Your task to perform on an android device: open chrome and create a bookmark for the current page Image 0: 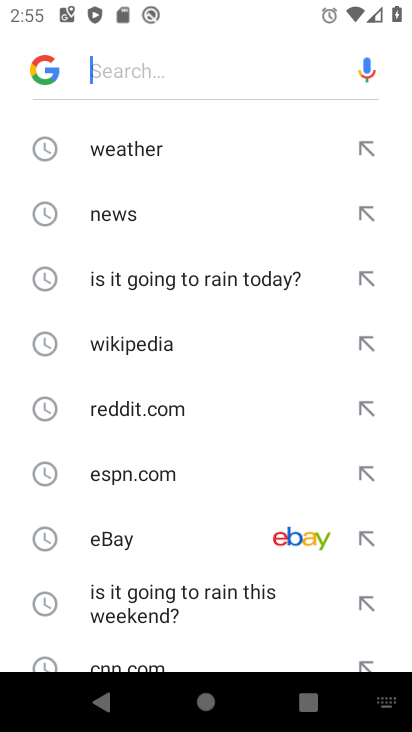
Step 0: press back button
Your task to perform on an android device: open chrome and create a bookmark for the current page Image 1: 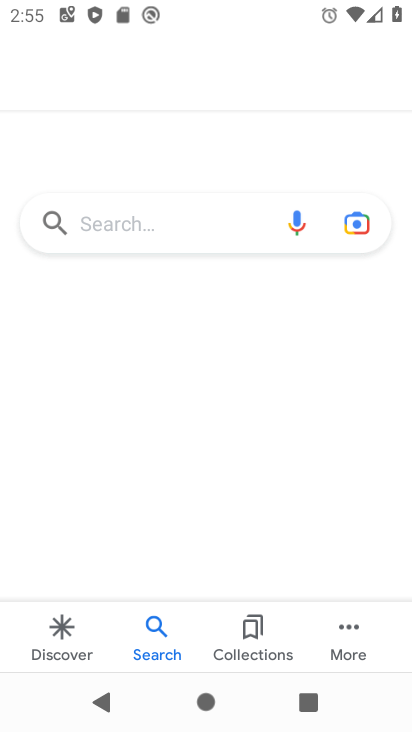
Step 1: press back button
Your task to perform on an android device: open chrome and create a bookmark for the current page Image 2: 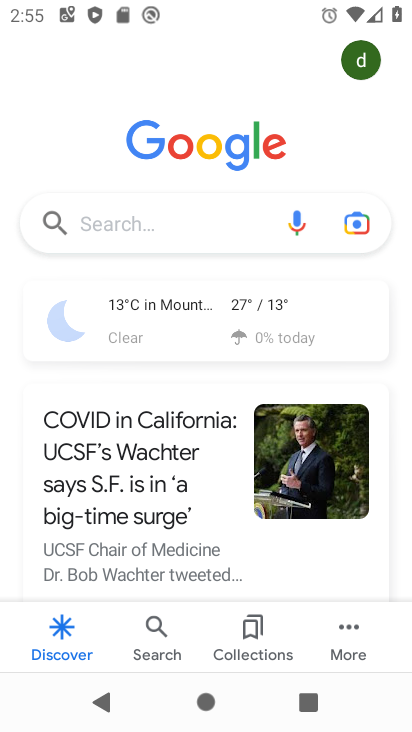
Step 2: press back button
Your task to perform on an android device: open chrome and create a bookmark for the current page Image 3: 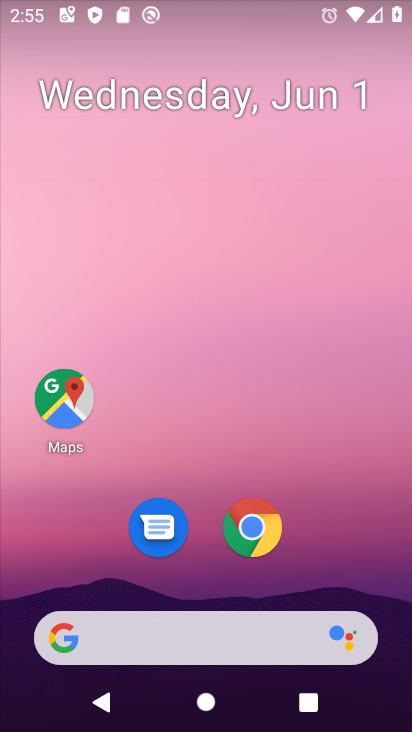
Step 3: click (254, 527)
Your task to perform on an android device: open chrome and create a bookmark for the current page Image 4: 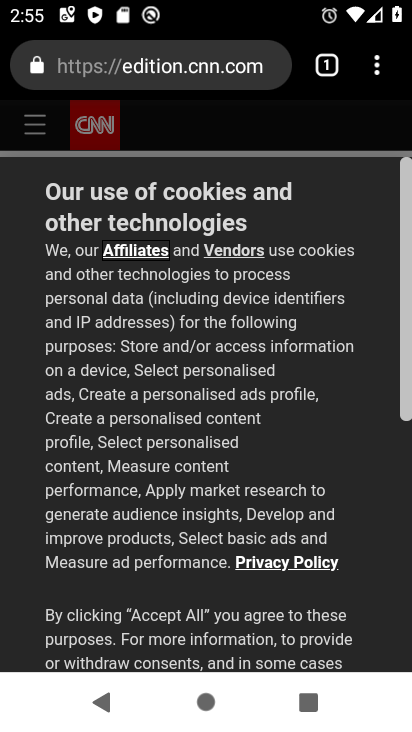
Step 4: click (377, 63)
Your task to perform on an android device: open chrome and create a bookmark for the current page Image 5: 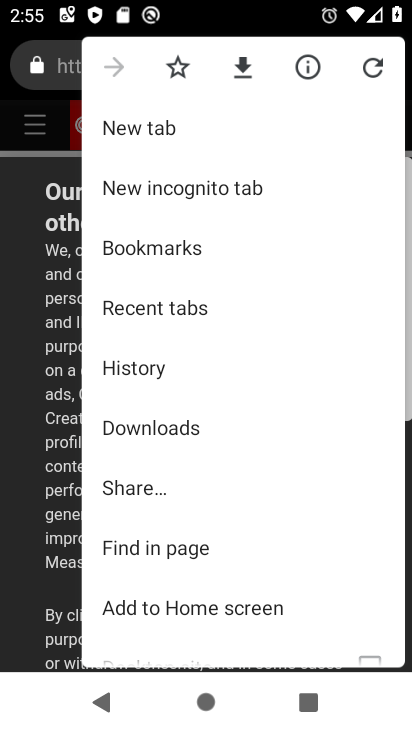
Step 5: click (180, 67)
Your task to perform on an android device: open chrome and create a bookmark for the current page Image 6: 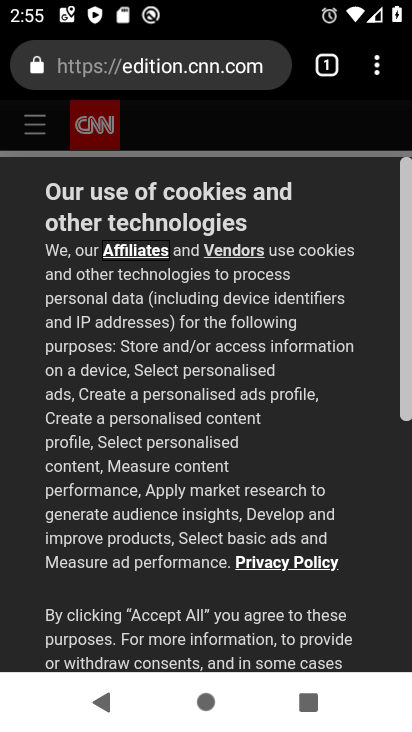
Step 6: task complete